Your task to perform on an android device: open device folders in google photos Image 0: 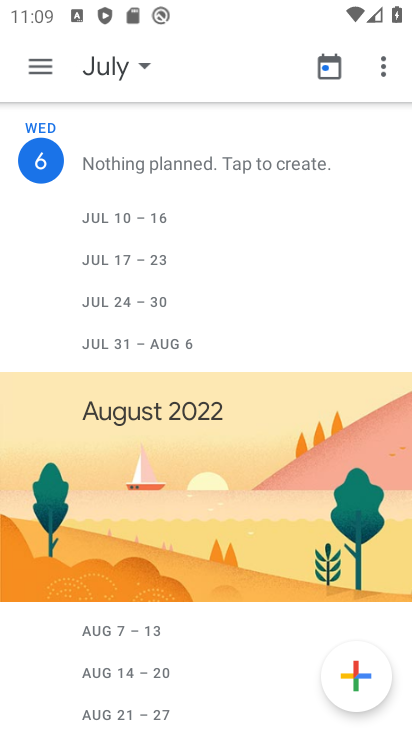
Step 0: press home button
Your task to perform on an android device: open device folders in google photos Image 1: 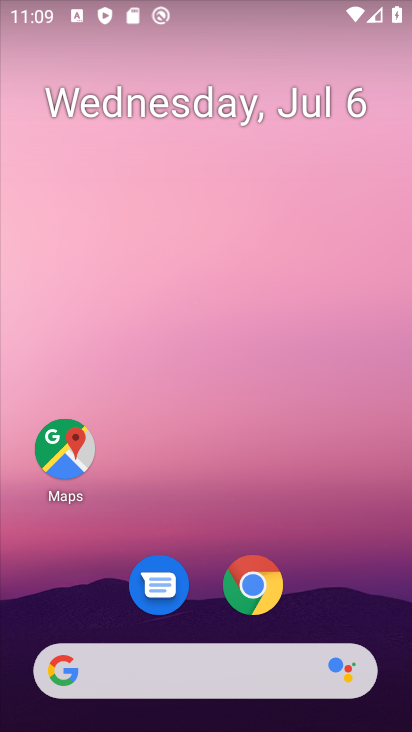
Step 1: drag from (210, 522) to (247, 0)
Your task to perform on an android device: open device folders in google photos Image 2: 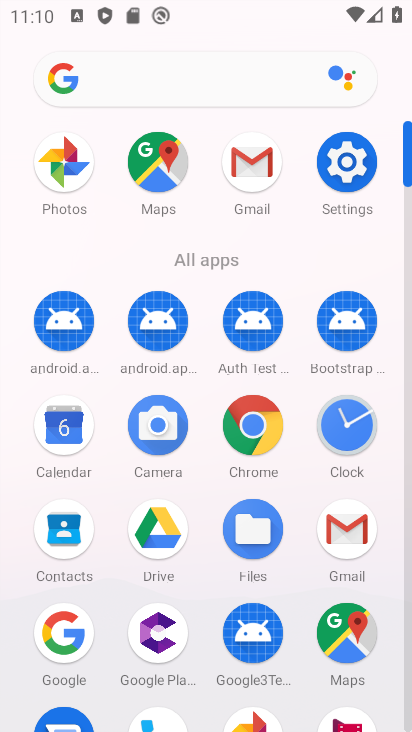
Step 2: click (72, 164)
Your task to perform on an android device: open device folders in google photos Image 3: 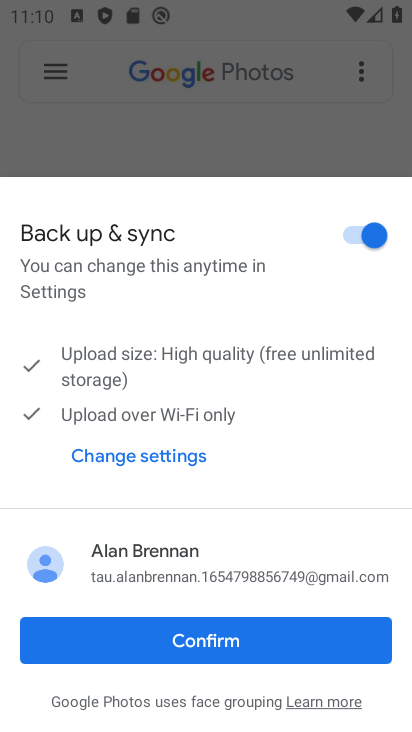
Step 3: click (291, 641)
Your task to perform on an android device: open device folders in google photos Image 4: 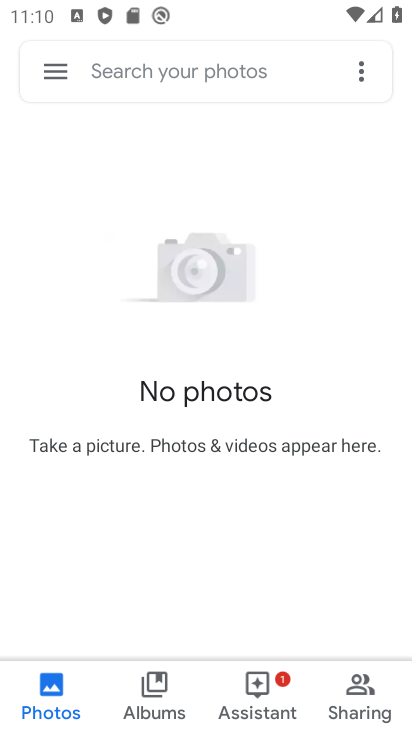
Step 4: click (63, 75)
Your task to perform on an android device: open device folders in google photos Image 5: 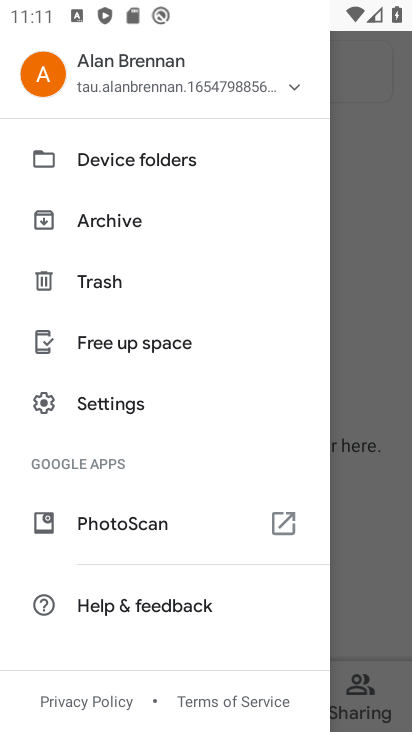
Step 5: click (141, 162)
Your task to perform on an android device: open device folders in google photos Image 6: 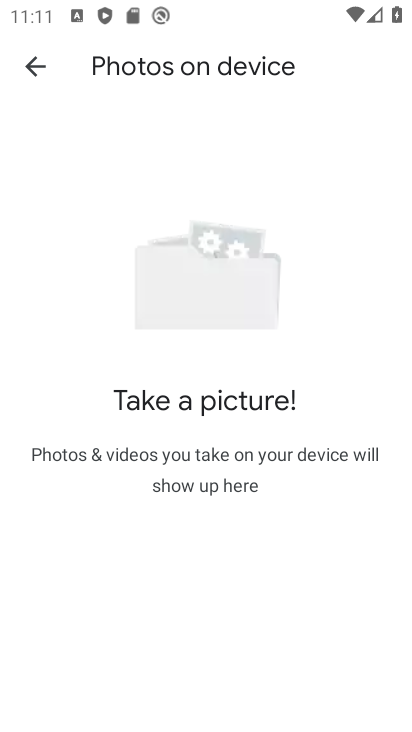
Step 6: task complete